Your task to perform on an android device: toggle wifi Image 0: 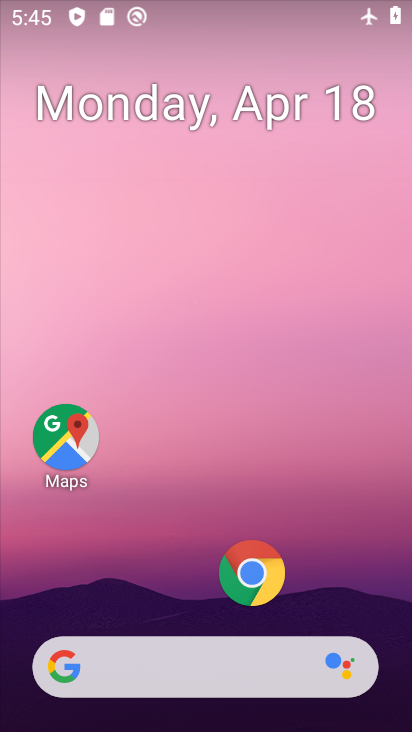
Step 0: drag from (167, 591) to (304, 8)
Your task to perform on an android device: toggle wifi Image 1: 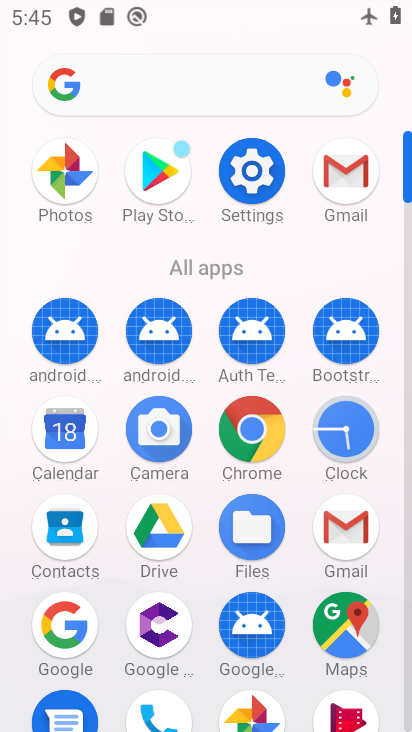
Step 1: click (255, 179)
Your task to perform on an android device: toggle wifi Image 2: 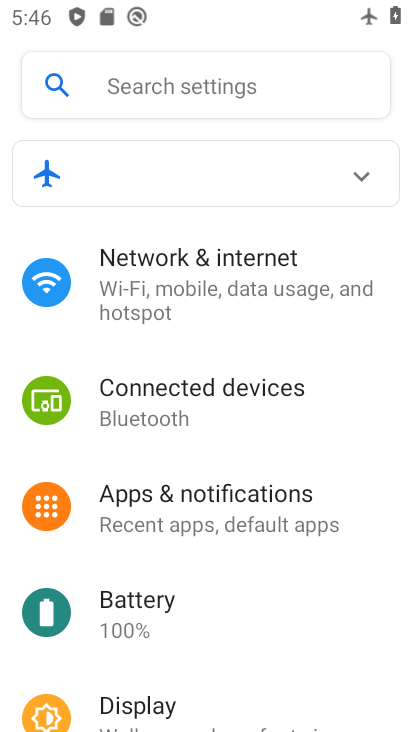
Step 2: click (254, 298)
Your task to perform on an android device: toggle wifi Image 3: 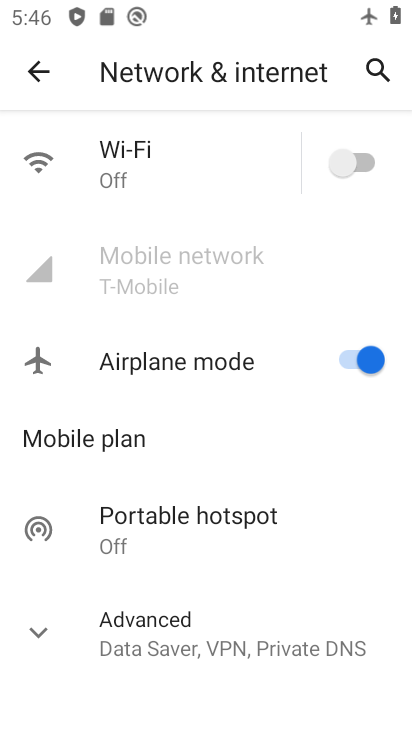
Step 3: click (360, 160)
Your task to perform on an android device: toggle wifi Image 4: 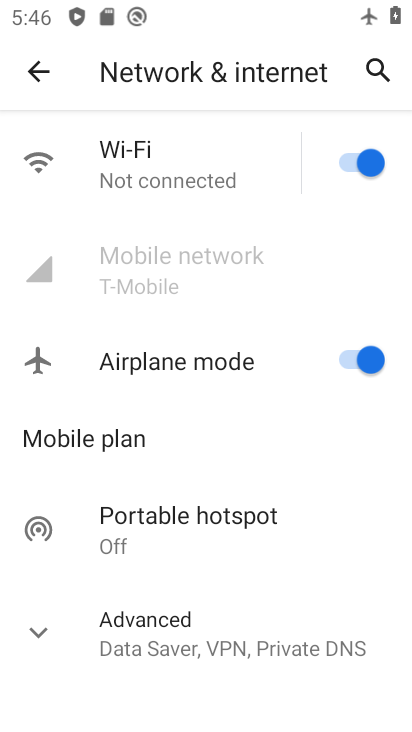
Step 4: task complete